Your task to perform on an android device: When is my next meeting? Image 0: 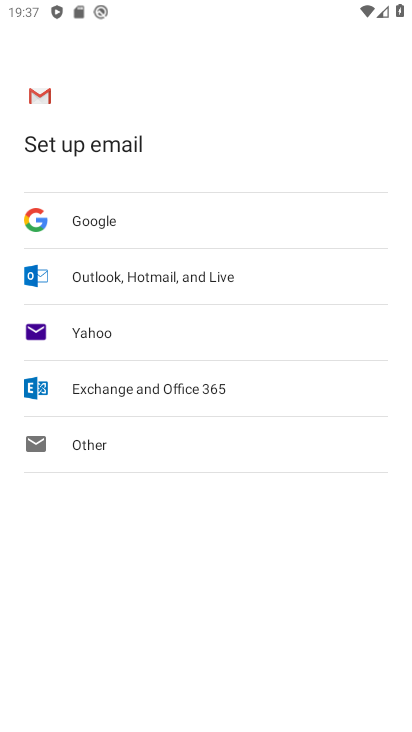
Step 0: press home button
Your task to perform on an android device: When is my next meeting? Image 1: 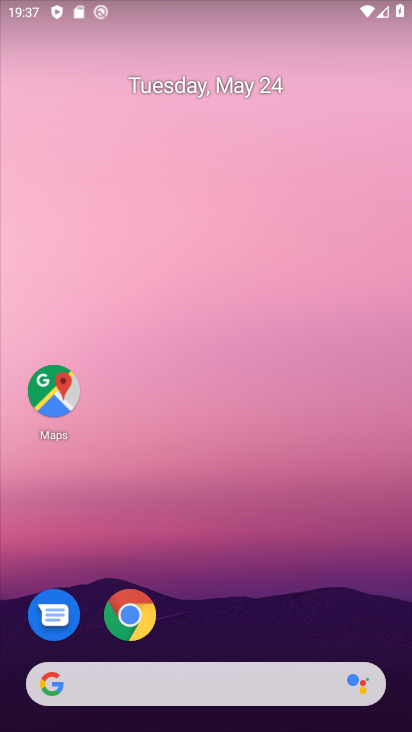
Step 1: drag from (223, 615) to (261, 176)
Your task to perform on an android device: When is my next meeting? Image 2: 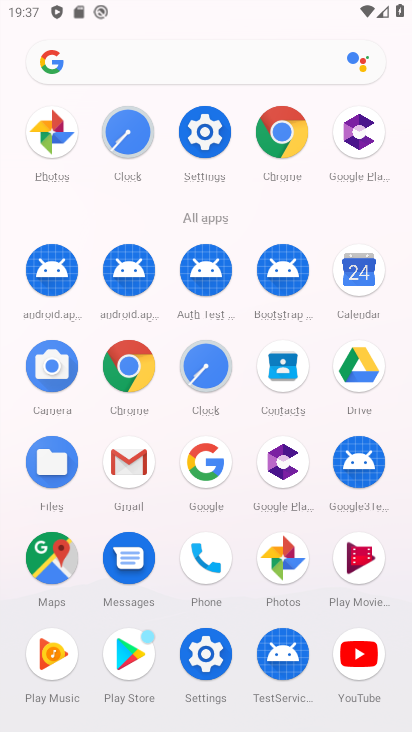
Step 2: drag from (220, 595) to (264, 213)
Your task to perform on an android device: When is my next meeting? Image 3: 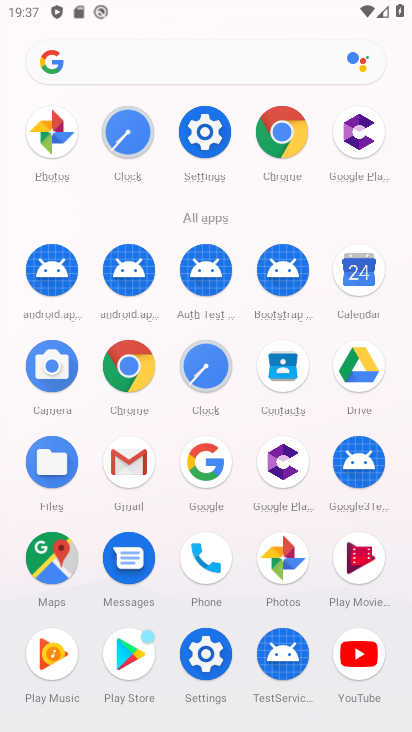
Step 3: click (360, 256)
Your task to perform on an android device: When is my next meeting? Image 4: 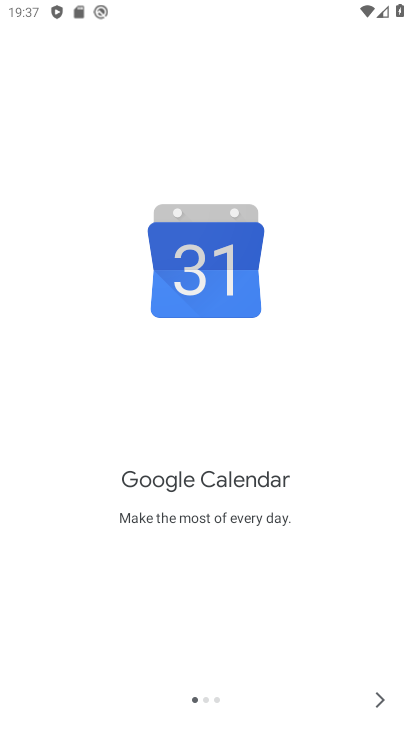
Step 4: click (367, 703)
Your task to perform on an android device: When is my next meeting? Image 5: 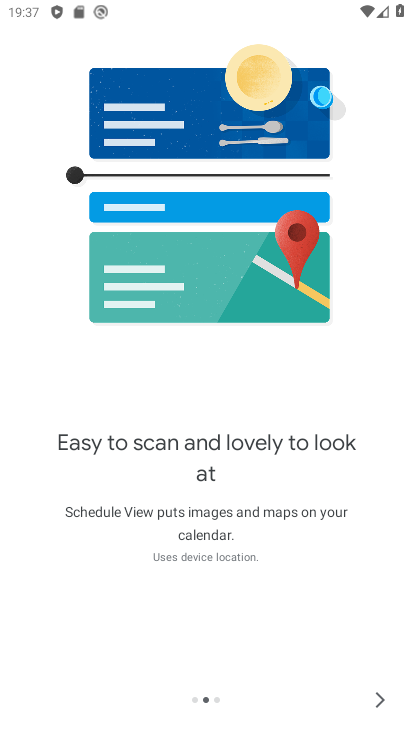
Step 5: click (354, 699)
Your task to perform on an android device: When is my next meeting? Image 6: 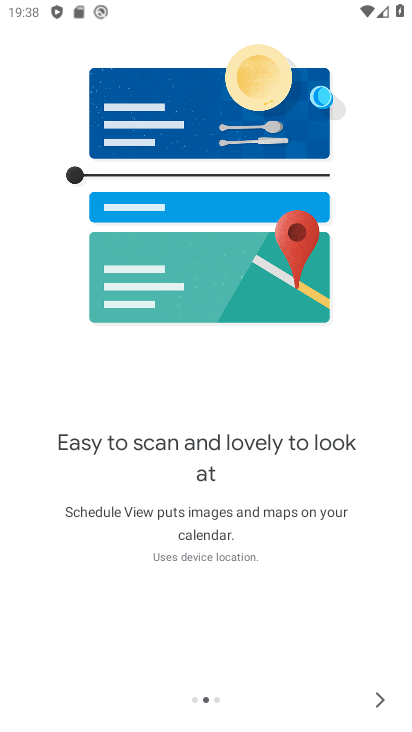
Step 6: click (353, 698)
Your task to perform on an android device: When is my next meeting? Image 7: 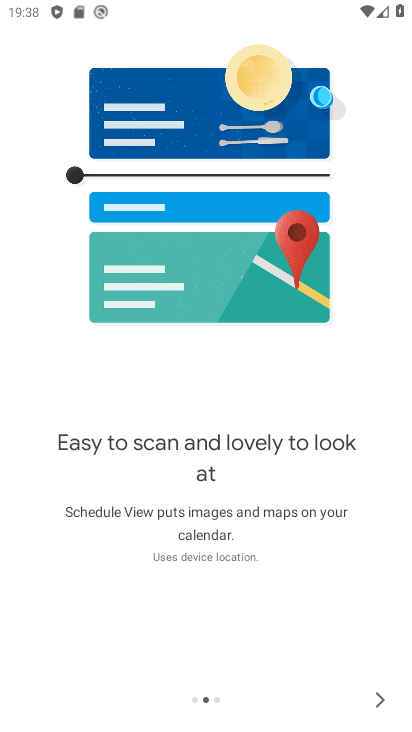
Step 7: click (374, 693)
Your task to perform on an android device: When is my next meeting? Image 8: 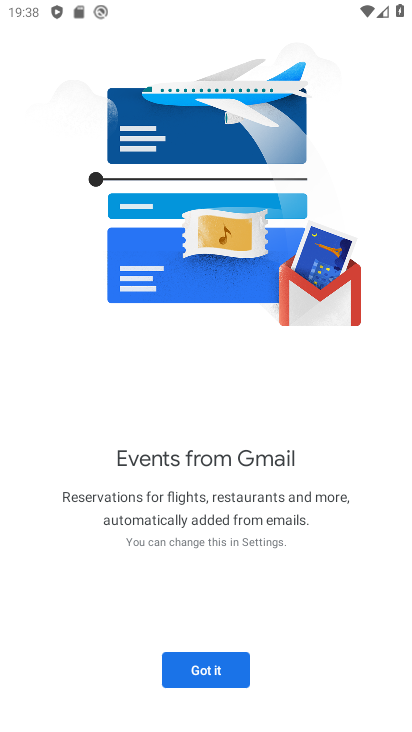
Step 8: click (200, 668)
Your task to perform on an android device: When is my next meeting? Image 9: 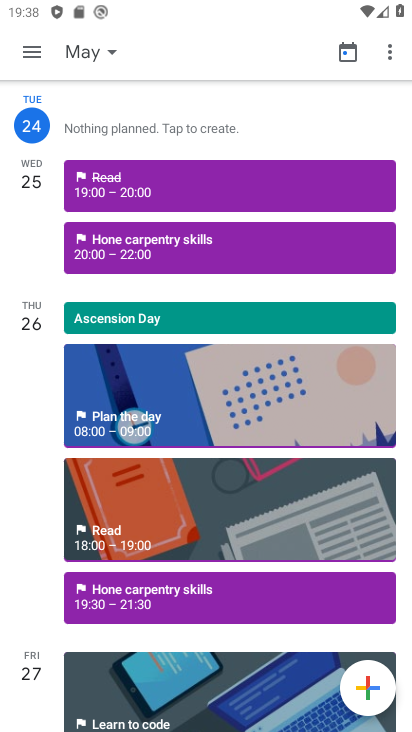
Step 9: task complete